Your task to perform on an android device: Open settings Image 0: 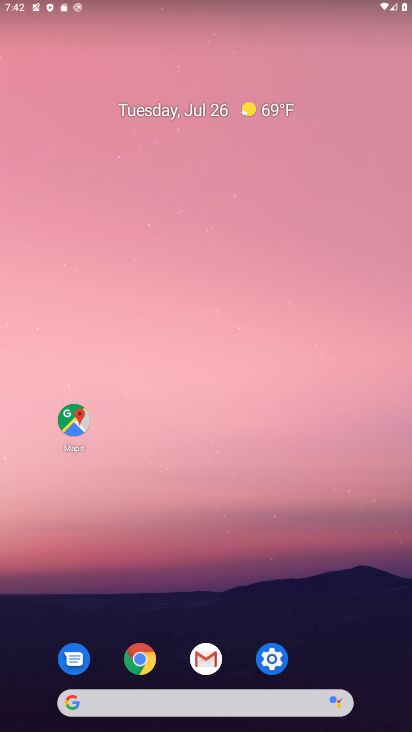
Step 0: click (276, 660)
Your task to perform on an android device: Open settings Image 1: 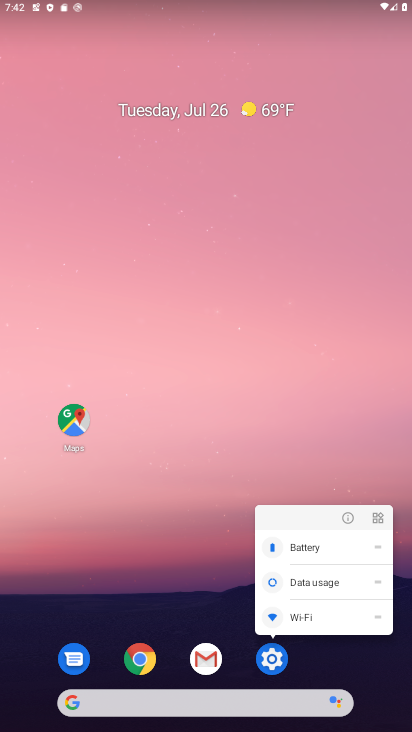
Step 1: click (277, 658)
Your task to perform on an android device: Open settings Image 2: 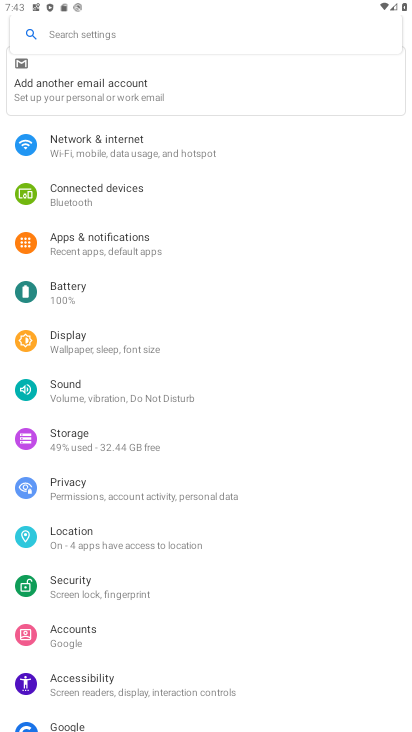
Step 2: task complete